Your task to perform on an android device: clear all cookies in the chrome app Image 0: 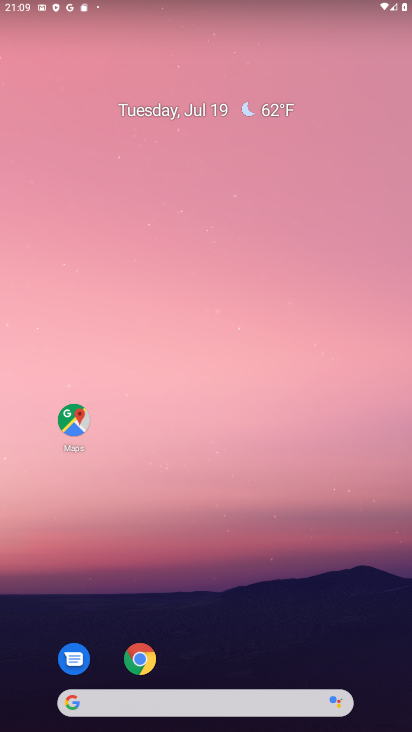
Step 0: click (143, 666)
Your task to perform on an android device: clear all cookies in the chrome app Image 1: 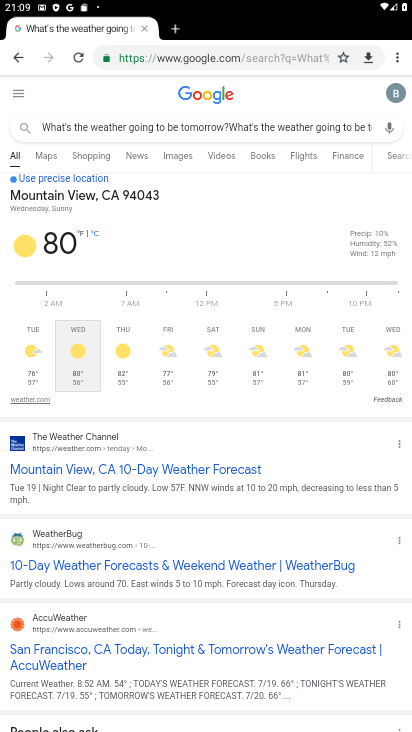
Step 1: drag from (396, 67) to (287, 349)
Your task to perform on an android device: clear all cookies in the chrome app Image 2: 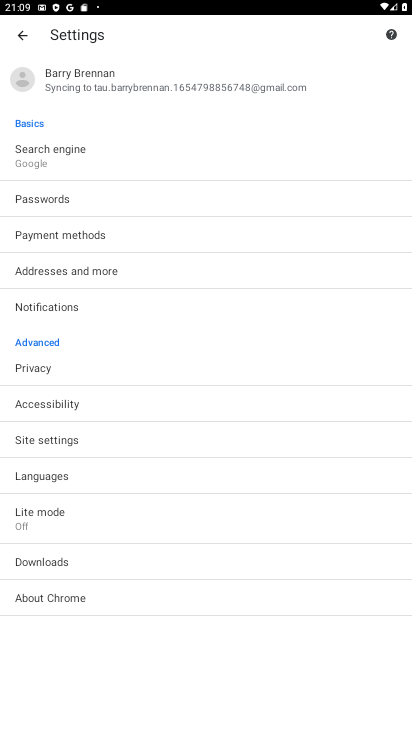
Step 2: click (38, 367)
Your task to perform on an android device: clear all cookies in the chrome app Image 3: 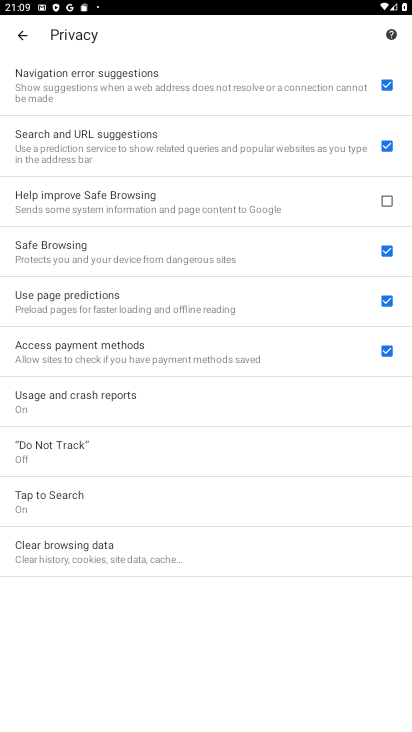
Step 3: click (93, 561)
Your task to perform on an android device: clear all cookies in the chrome app Image 4: 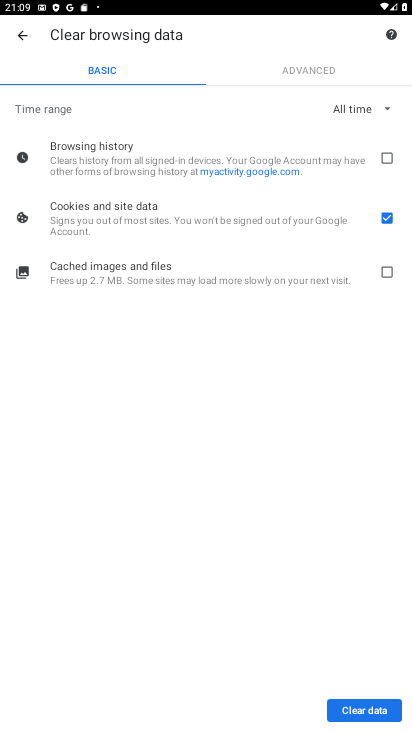
Step 4: click (360, 707)
Your task to perform on an android device: clear all cookies in the chrome app Image 5: 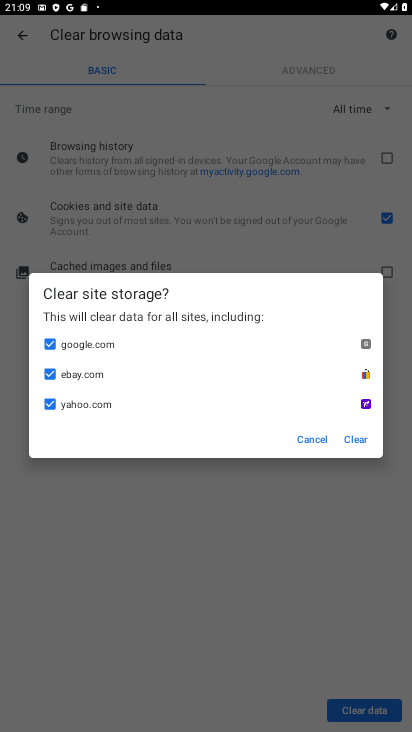
Step 5: click (357, 444)
Your task to perform on an android device: clear all cookies in the chrome app Image 6: 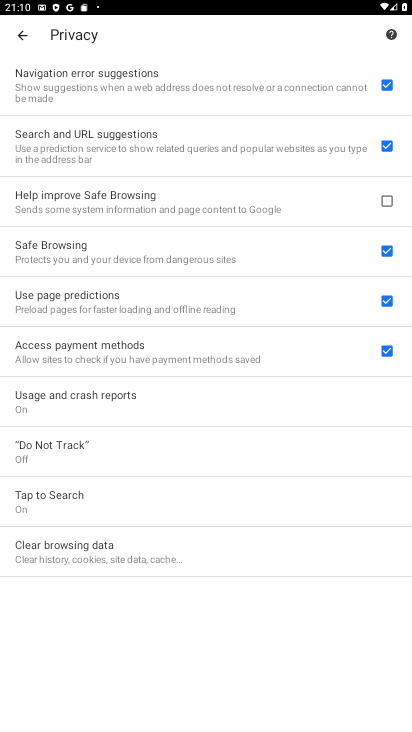
Step 6: click (106, 544)
Your task to perform on an android device: clear all cookies in the chrome app Image 7: 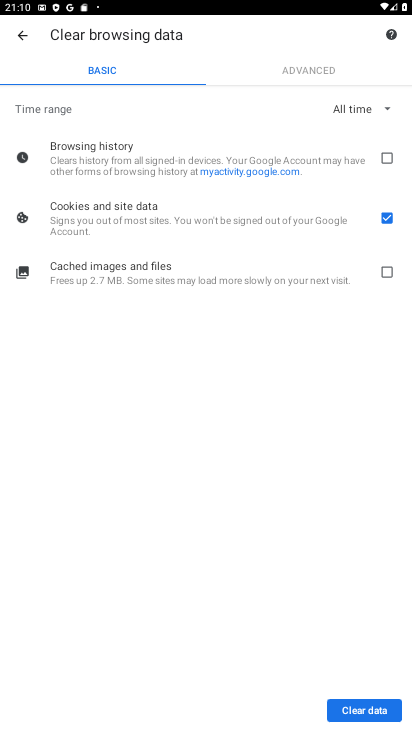
Step 7: click (389, 708)
Your task to perform on an android device: clear all cookies in the chrome app Image 8: 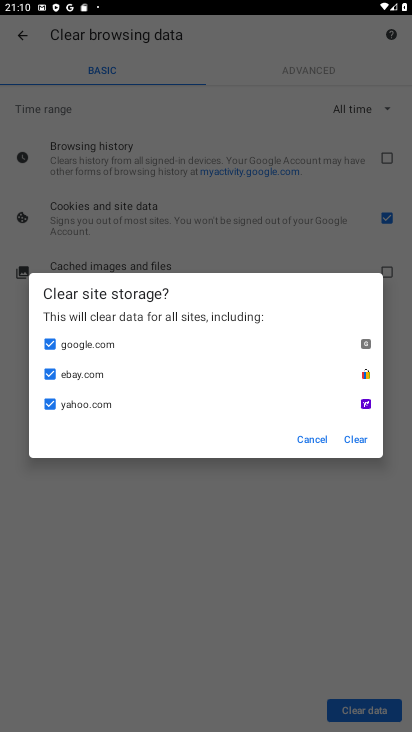
Step 8: click (348, 436)
Your task to perform on an android device: clear all cookies in the chrome app Image 9: 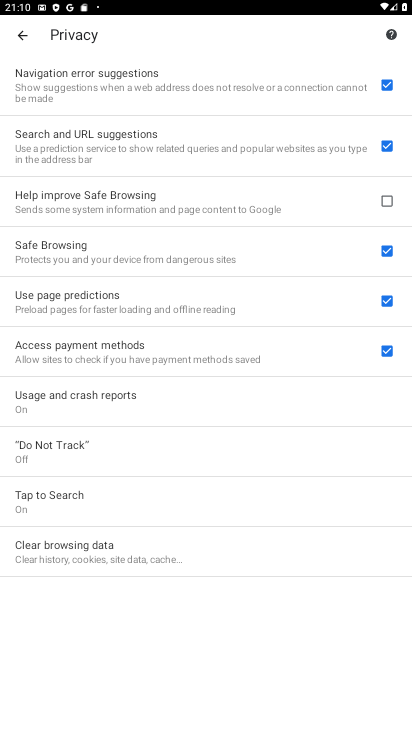
Step 9: task complete